Your task to perform on an android device: Set the phone to "Do not disturb". Image 0: 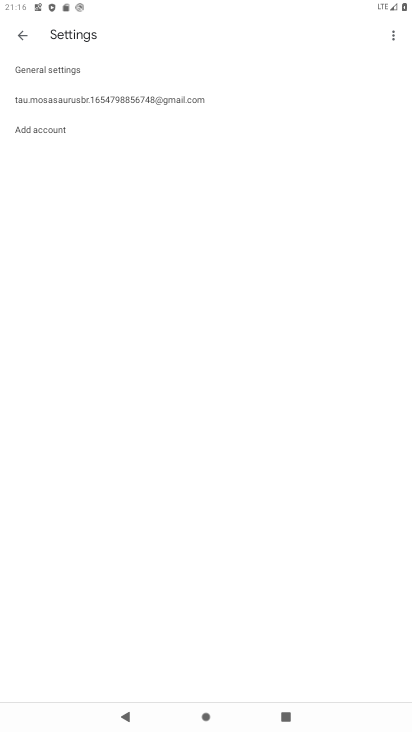
Step 0: press home button
Your task to perform on an android device: Set the phone to "Do not disturb". Image 1: 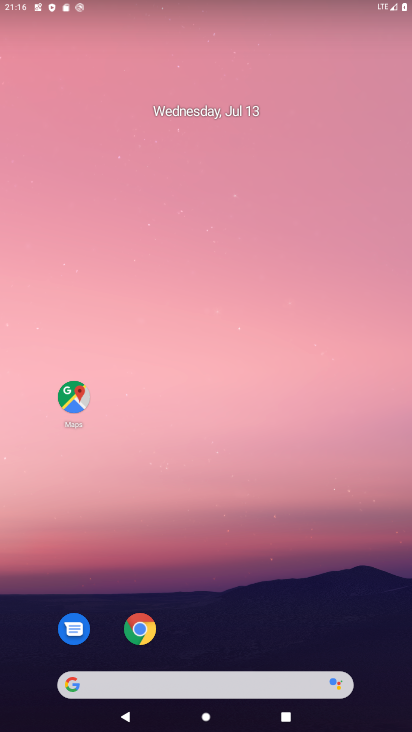
Step 1: drag from (214, 5) to (207, 417)
Your task to perform on an android device: Set the phone to "Do not disturb". Image 2: 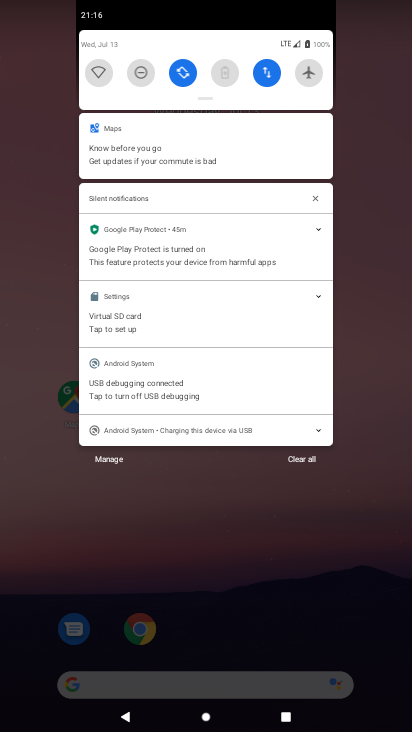
Step 2: click (136, 69)
Your task to perform on an android device: Set the phone to "Do not disturb". Image 3: 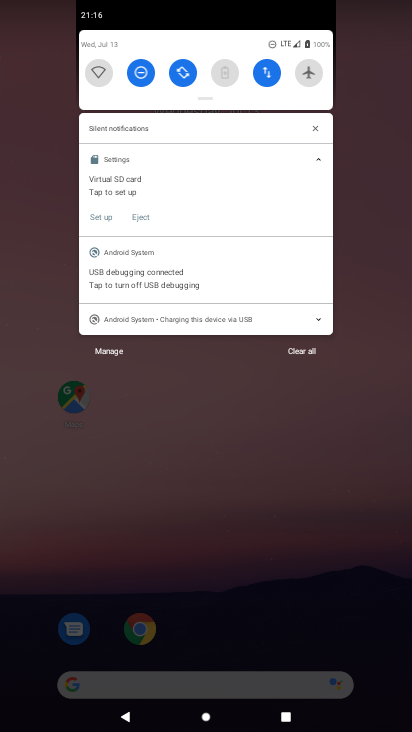
Step 3: click (245, 430)
Your task to perform on an android device: Set the phone to "Do not disturb". Image 4: 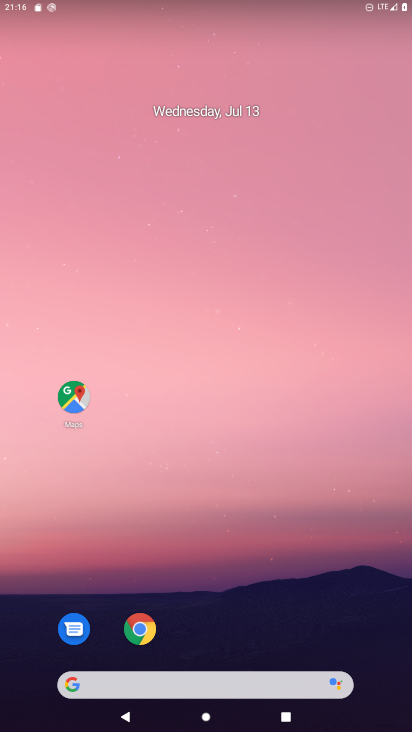
Step 4: task complete